Your task to perform on an android device: change notifications settings Image 0: 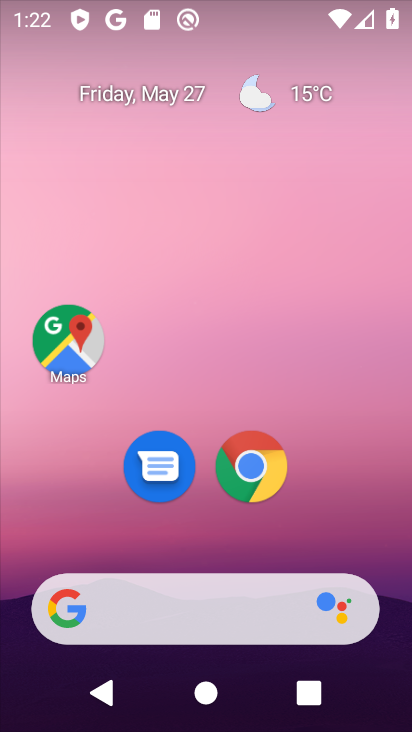
Step 0: drag from (65, 554) to (217, 87)
Your task to perform on an android device: change notifications settings Image 1: 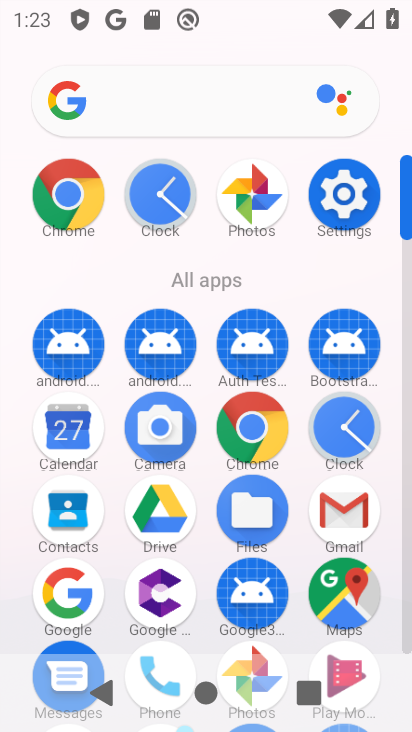
Step 1: drag from (149, 528) to (244, 238)
Your task to perform on an android device: change notifications settings Image 2: 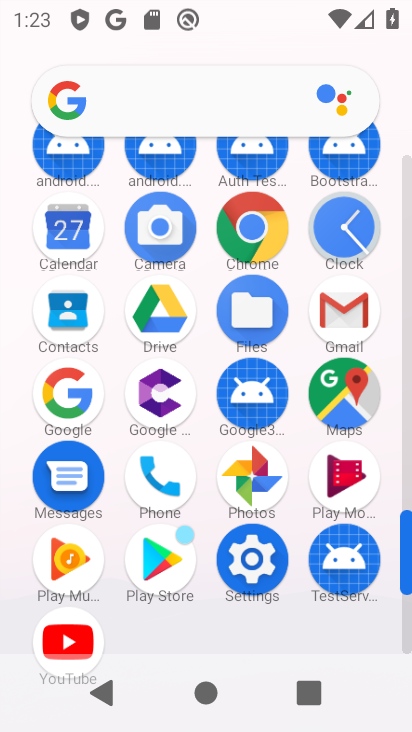
Step 2: click (248, 561)
Your task to perform on an android device: change notifications settings Image 3: 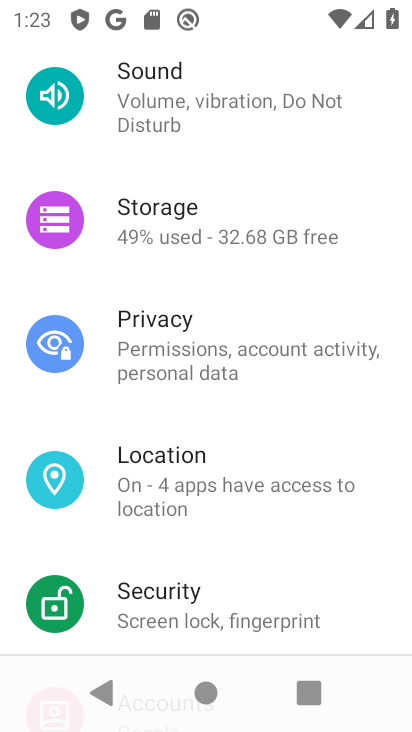
Step 3: drag from (265, 223) to (201, 613)
Your task to perform on an android device: change notifications settings Image 4: 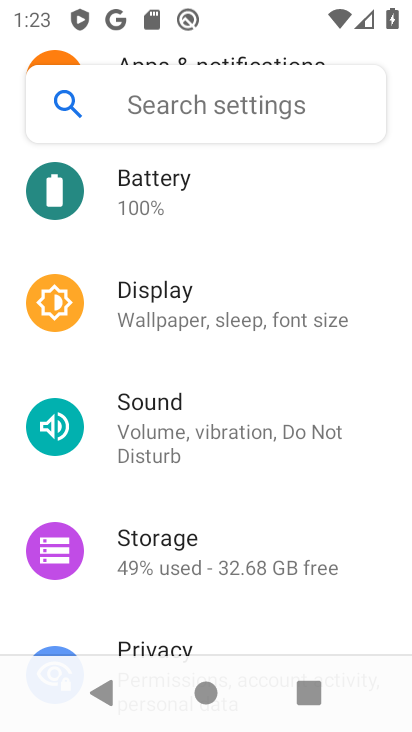
Step 4: drag from (267, 207) to (239, 524)
Your task to perform on an android device: change notifications settings Image 5: 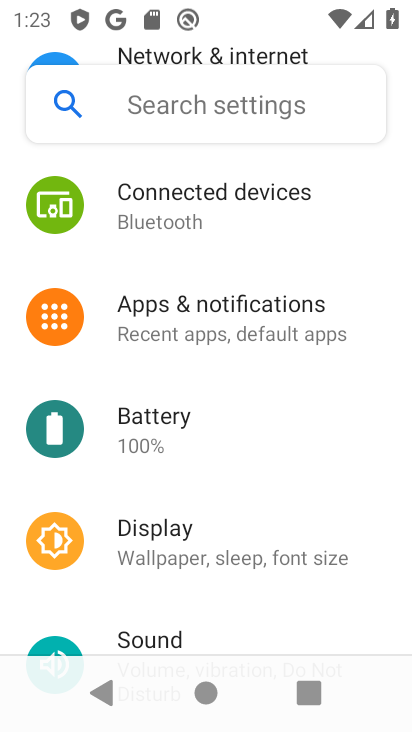
Step 5: click (239, 327)
Your task to perform on an android device: change notifications settings Image 6: 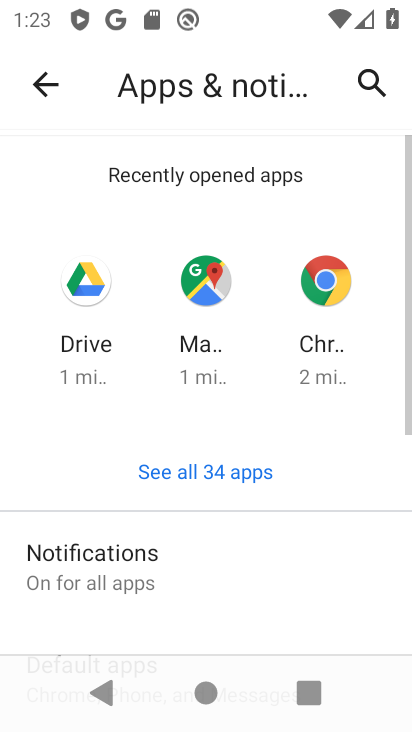
Step 6: click (177, 561)
Your task to perform on an android device: change notifications settings Image 7: 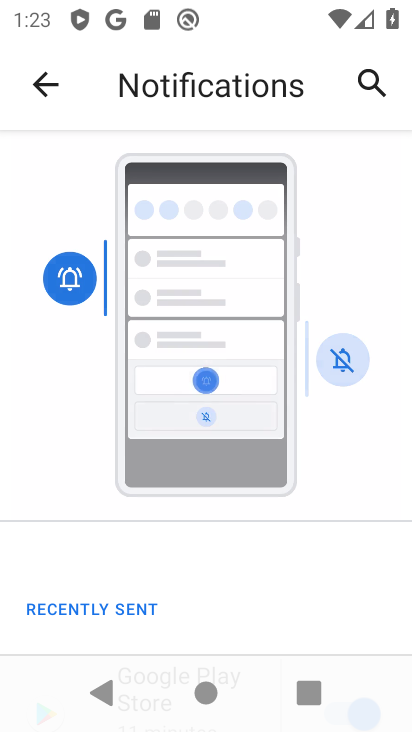
Step 7: drag from (190, 598) to (245, 431)
Your task to perform on an android device: change notifications settings Image 8: 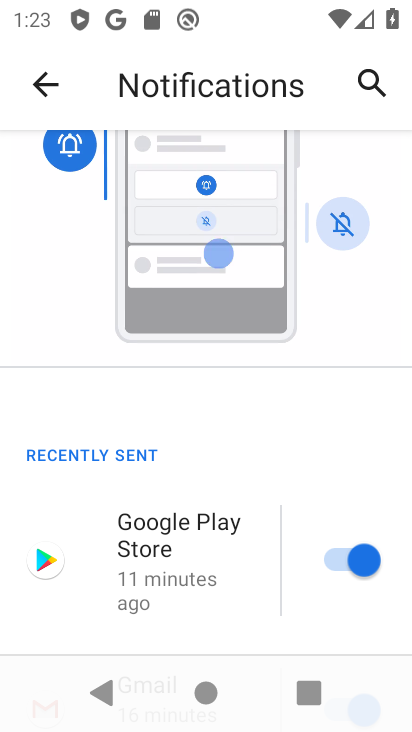
Step 8: drag from (156, 602) to (287, 167)
Your task to perform on an android device: change notifications settings Image 9: 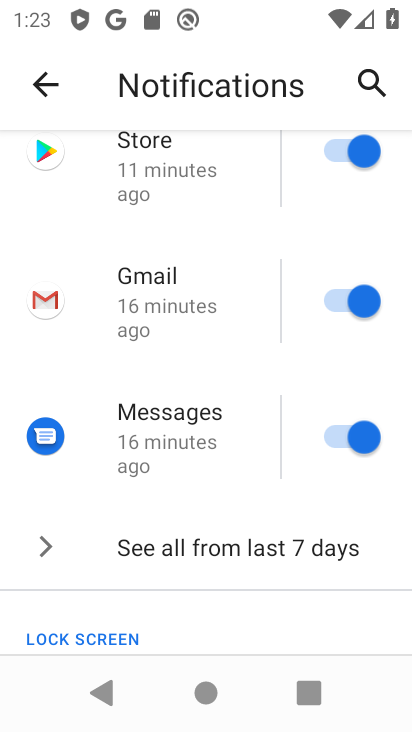
Step 9: click (348, 430)
Your task to perform on an android device: change notifications settings Image 10: 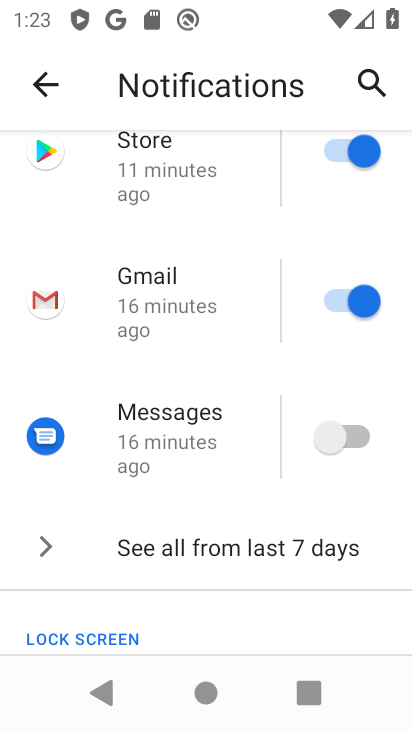
Step 10: click (354, 294)
Your task to perform on an android device: change notifications settings Image 11: 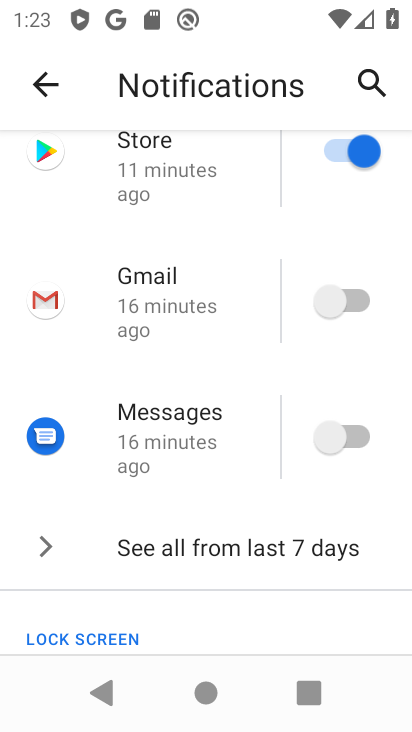
Step 11: drag from (135, 523) to (240, 290)
Your task to perform on an android device: change notifications settings Image 12: 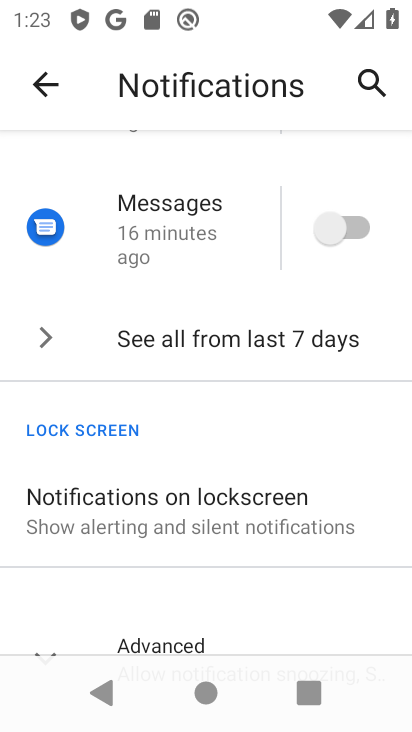
Step 12: click (206, 498)
Your task to perform on an android device: change notifications settings Image 13: 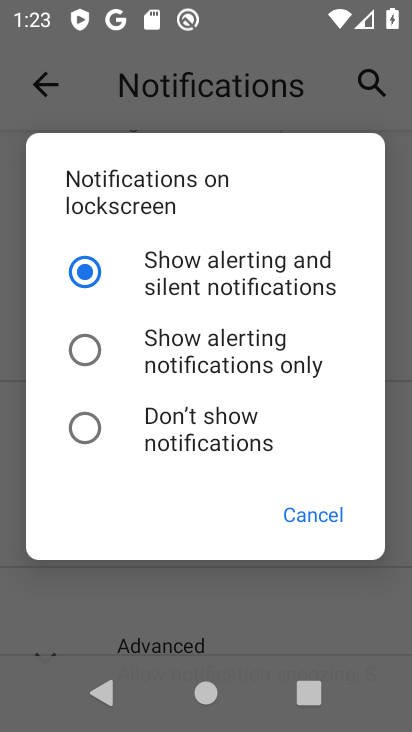
Step 13: click (225, 358)
Your task to perform on an android device: change notifications settings Image 14: 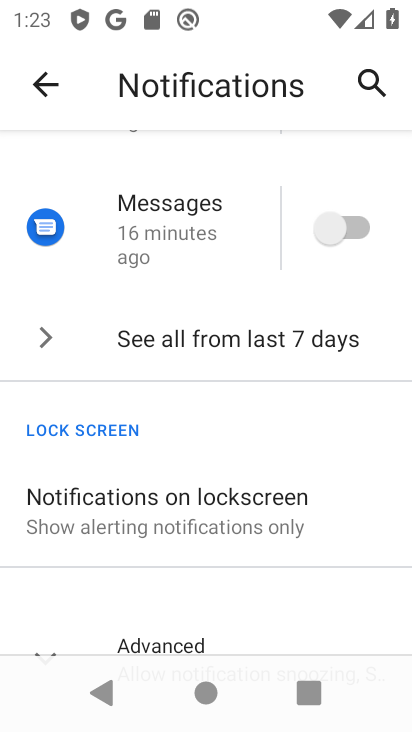
Step 14: drag from (220, 554) to (306, 279)
Your task to perform on an android device: change notifications settings Image 15: 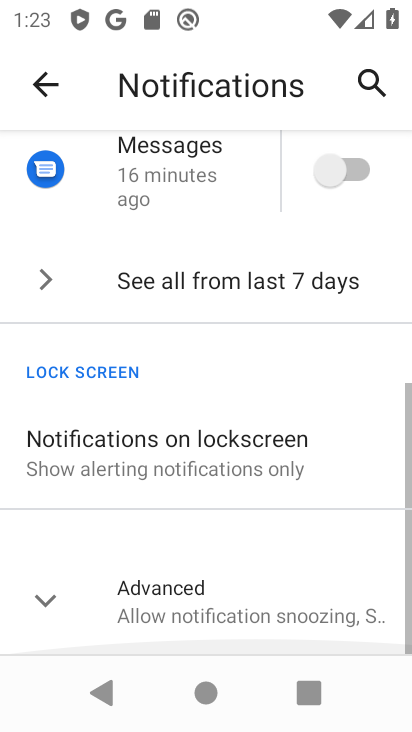
Step 15: click (203, 591)
Your task to perform on an android device: change notifications settings Image 16: 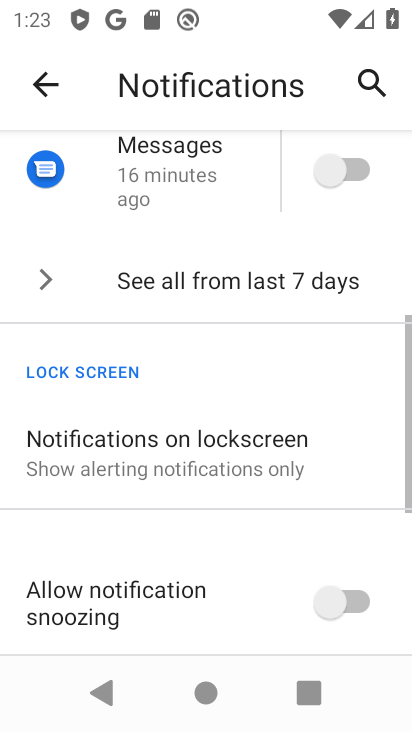
Step 16: drag from (206, 557) to (317, 230)
Your task to perform on an android device: change notifications settings Image 17: 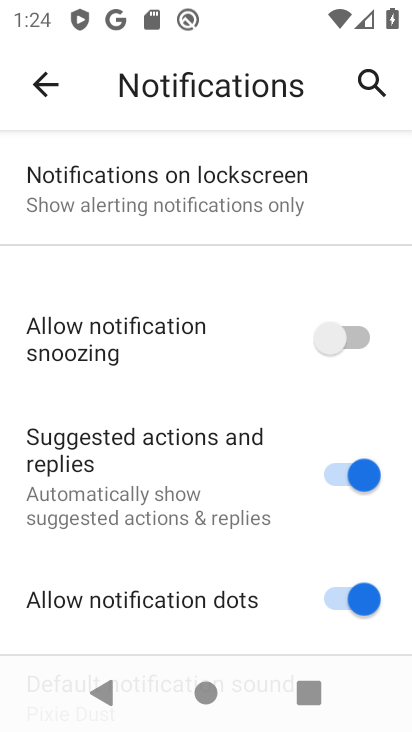
Step 17: click (338, 474)
Your task to perform on an android device: change notifications settings Image 18: 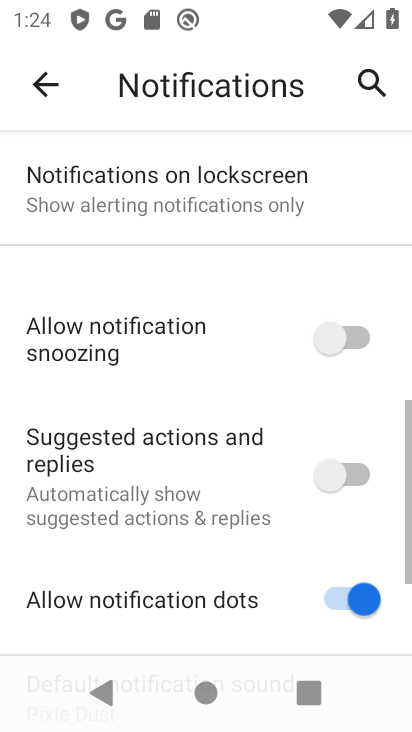
Step 18: drag from (202, 534) to (287, 215)
Your task to perform on an android device: change notifications settings Image 19: 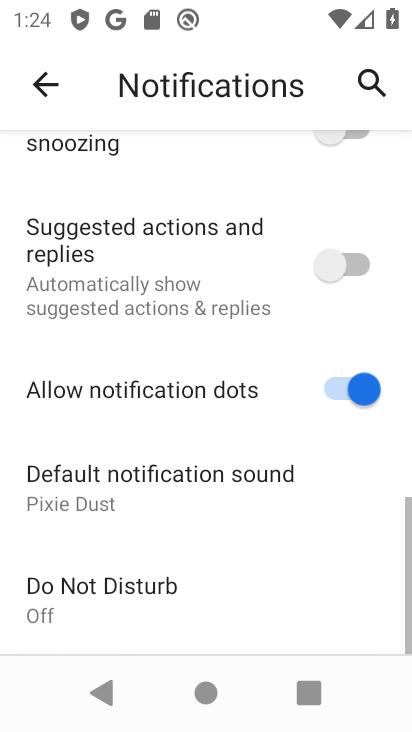
Step 19: click (179, 495)
Your task to perform on an android device: change notifications settings Image 20: 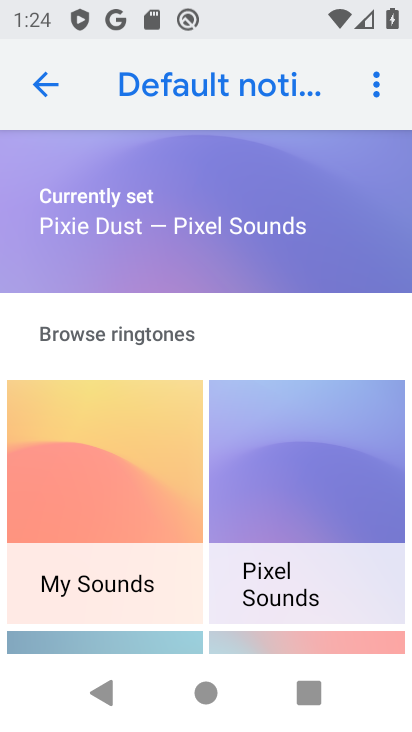
Step 20: click (322, 502)
Your task to perform on an android device: change notifications settings Image 21: 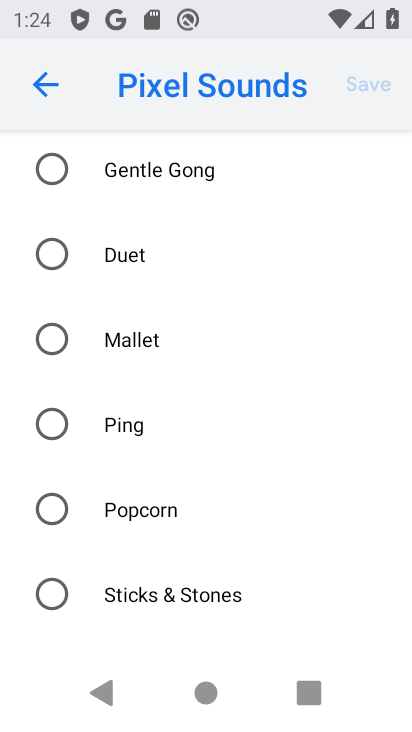
Step 21: click (108, 416)
Your task to perform on an android device: change notifications settings Image 22: 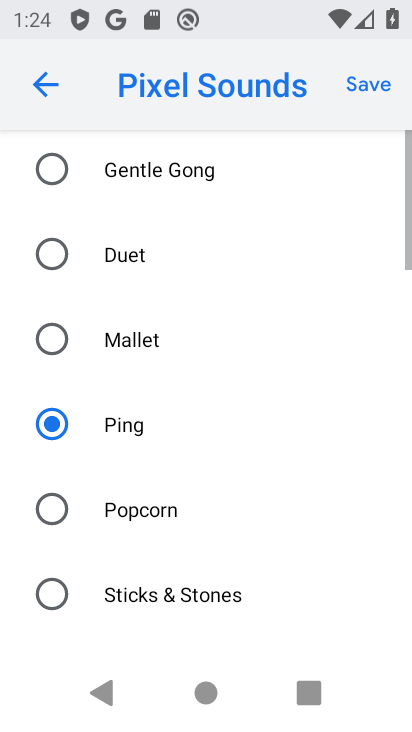
Step 22: click (360, 94)
Your task to perform on an android device: change notifications settings Image 23: 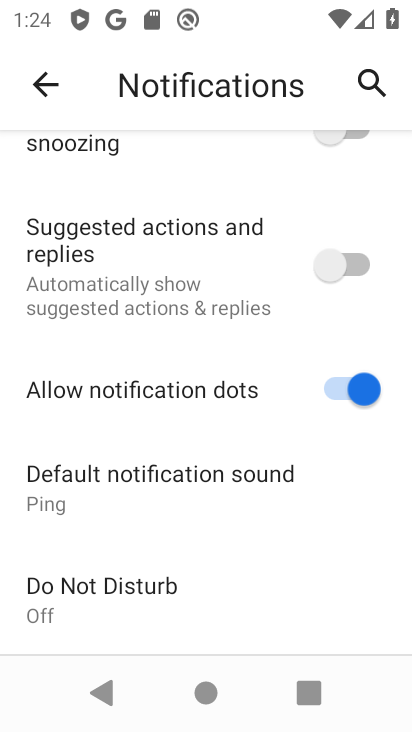
Step 23: task complete